Your task to perform on an android device: Show me popular games on the Play Store Image 0: 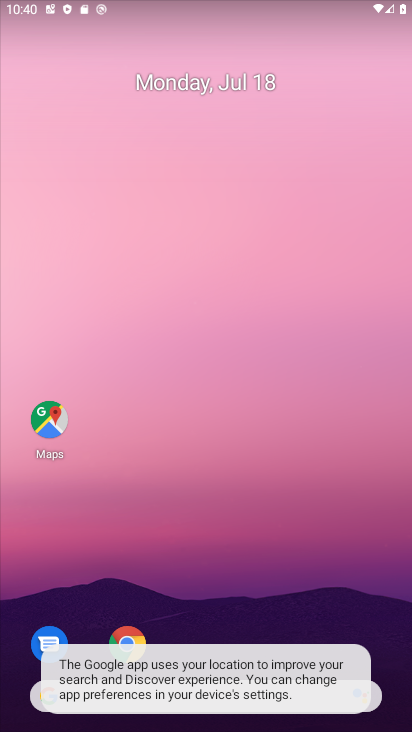
Step 0: drag from (209, 634) to (235, 60)
Your task to perform on an android device: Show me popular games on the Play Store Image 1: 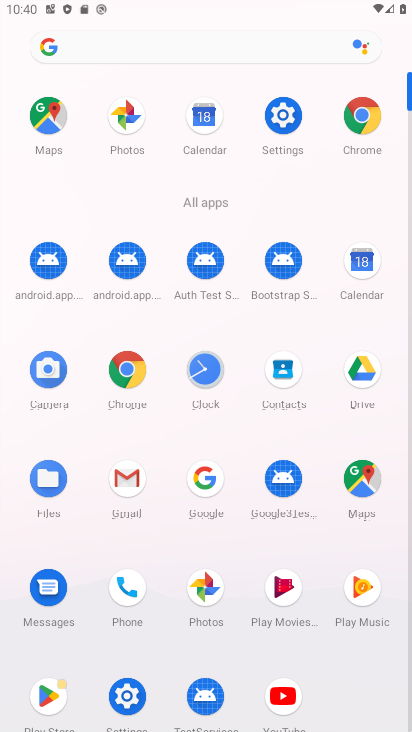
Step 1: click (51, 695)
Your task to perform on an android device: Show me popular games on the Play Store Image 2: 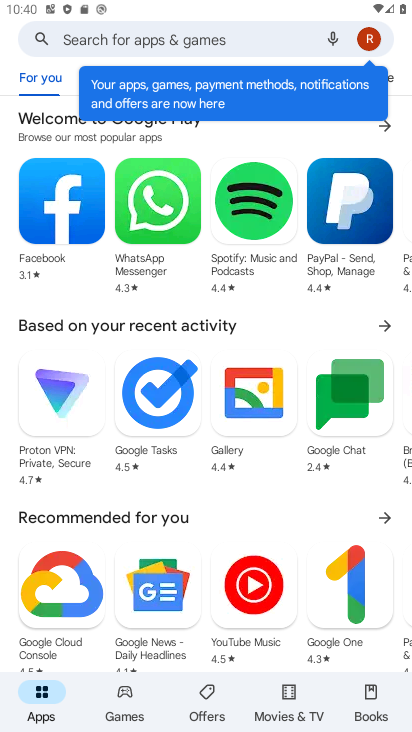
Step 2: click (122, 699)
Your task to perform on an android device: Show me popular games on the Play Store Image 3: 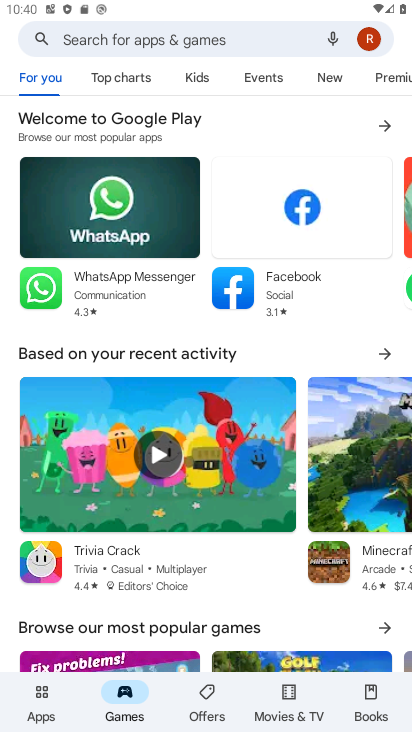
Step 3: click (308, 630)
Your task to perform on an android device: Show me popular games on the Play Store Image 4: 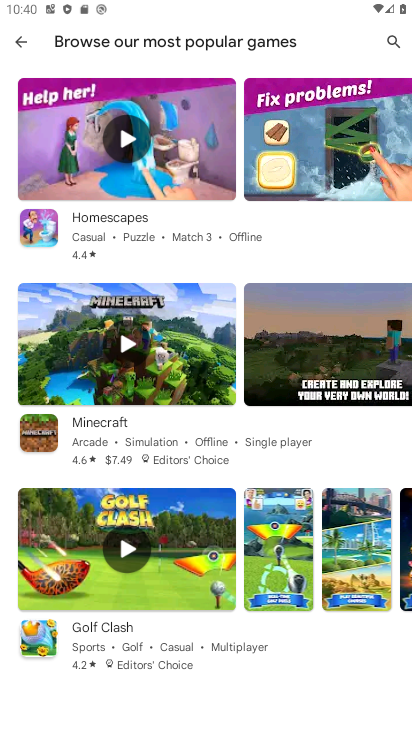
Step 4: task complete